Your task to perform on an android device: change the clock display to analog Image 0: 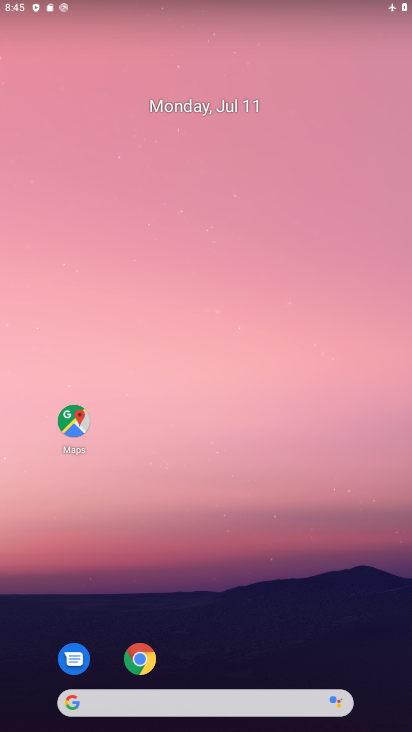
Step 0: drag from (203, 659) to (202, 54)
Your task to perform on an android device: change the clock display to analog Image 1: 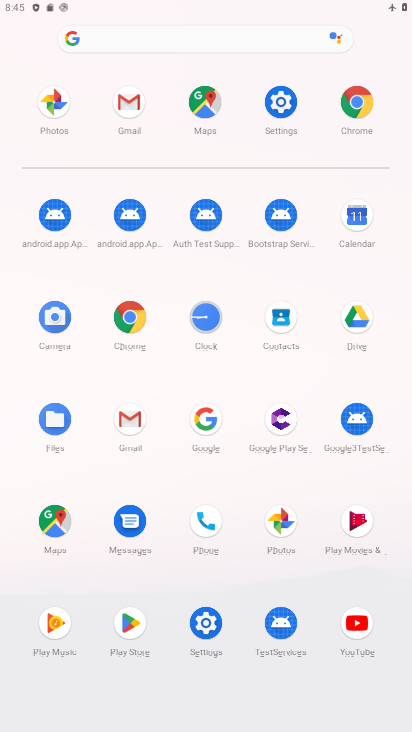
Step 1: click (222, 320)
Your task to perform on an android device: change the clock display to analog Image 2: 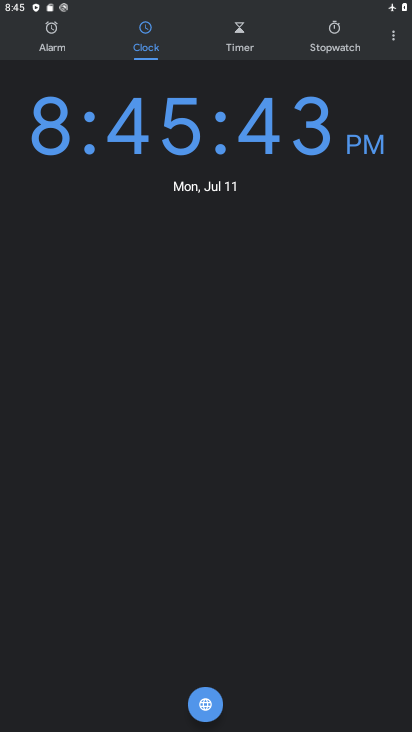
Step 2: click (391, 32)
Your task to perform on an android device: change the clock display to analog Image 3: 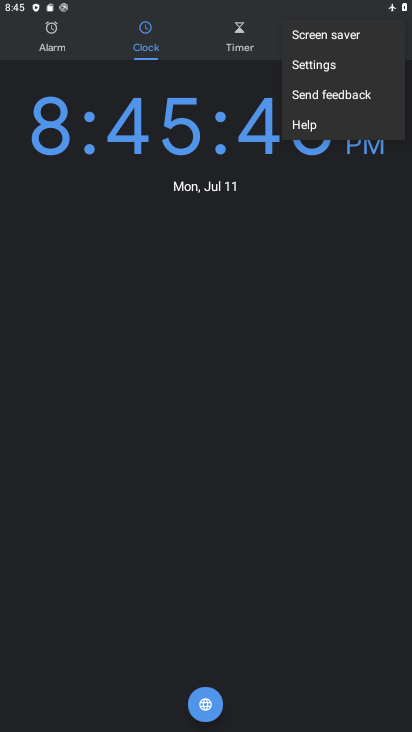
Step 3: click (325, 68)
Your task to perform on an android device: change the clock display to analog Image 4: 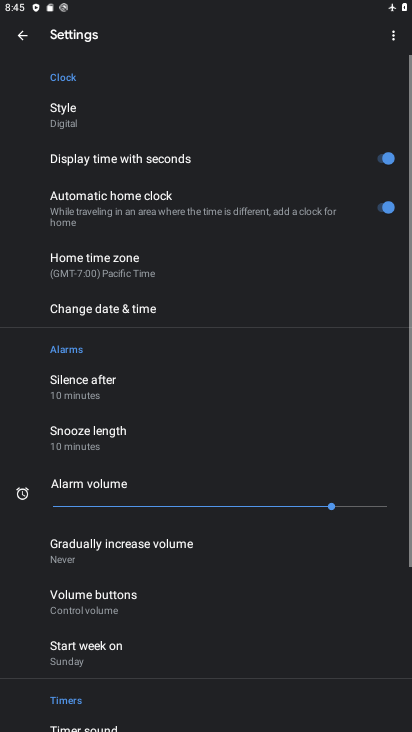
Step 4: click (134, 112)
Your task to perform on an android device: change the clock display to analog Image 5: 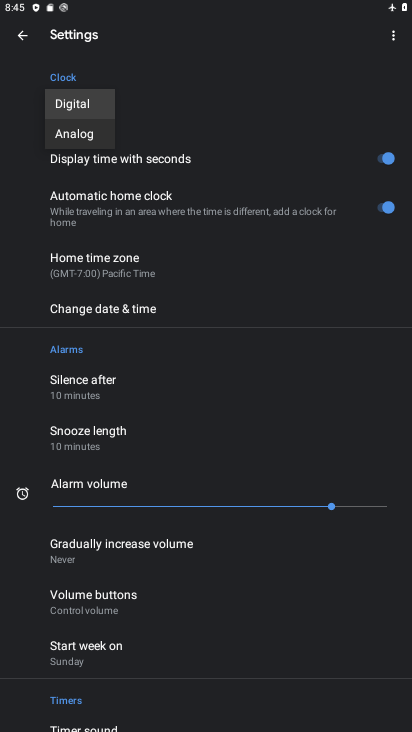
Step 5: click (97, 130)
Your task to perform on an android device: change the clock display to analog Image 6: 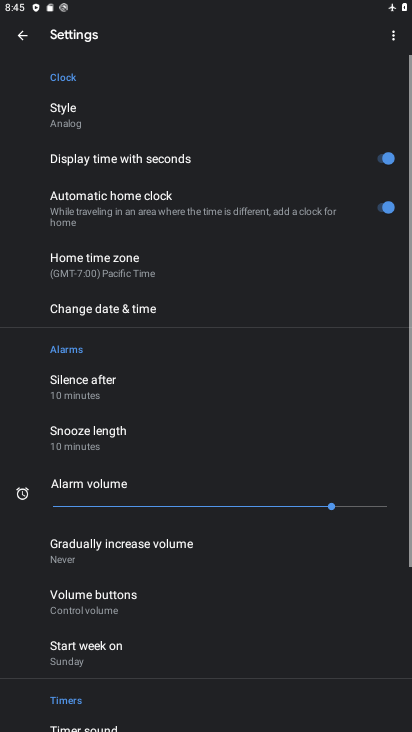
Step 6: task complete